Your task to perform on an android device: Go to Amazon Image 0: 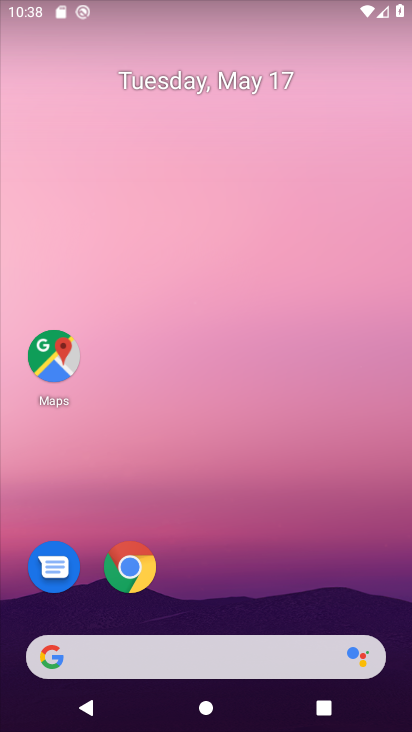
Step 0: click (139, 569)
Your task to perform on an android device: Go to Amazon Image 1: 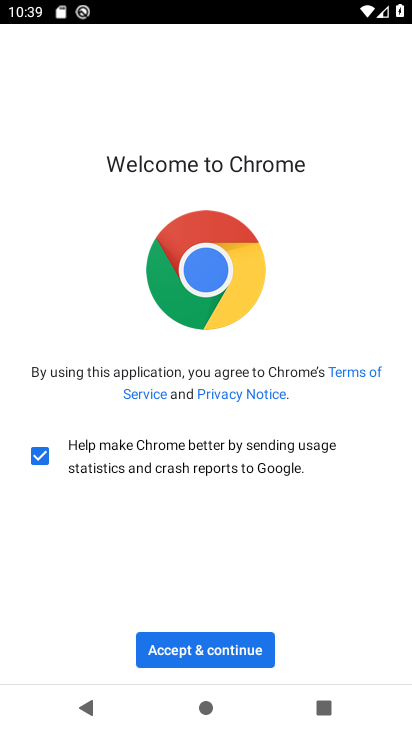
Step 1: click (208, 650)
Your task to perform on an android device: Go to Amazon Image 2: 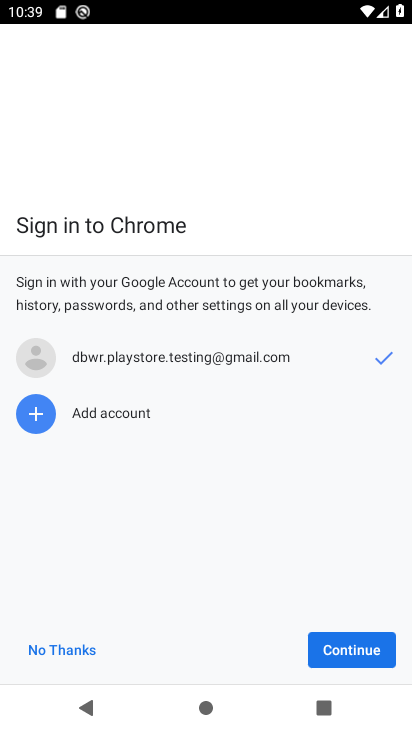
Step 2: click (342, 646)
Your task to perform on an android device: Go to Amazon Image 3: 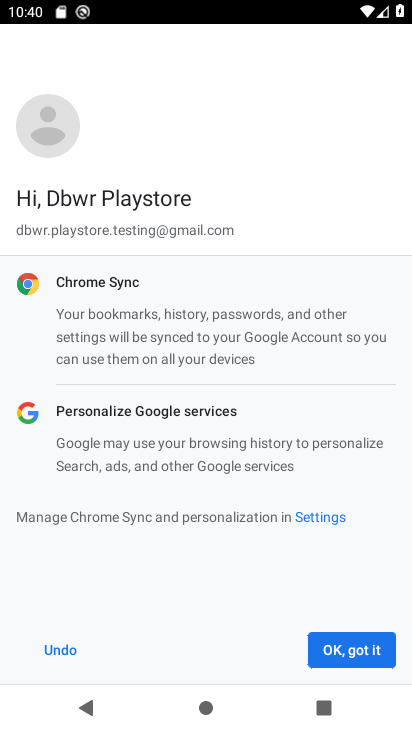
Step 3: click (329, 644)
Your task to perform on an android device: Go to Amazon Image 4: 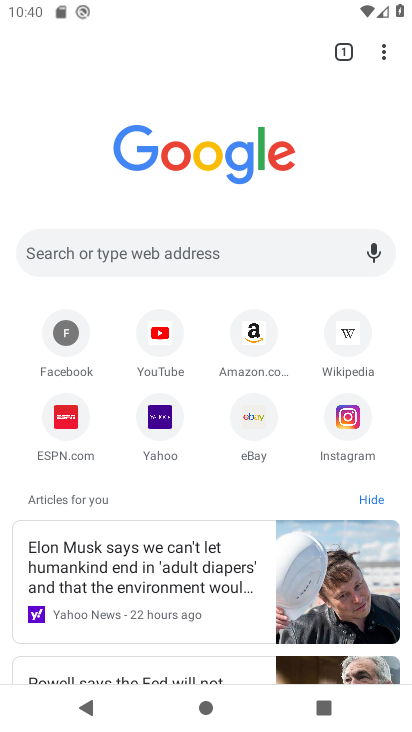
Step 4: click (250, 328)
Your task to perform on an android device: Go to Amazon Image 5: 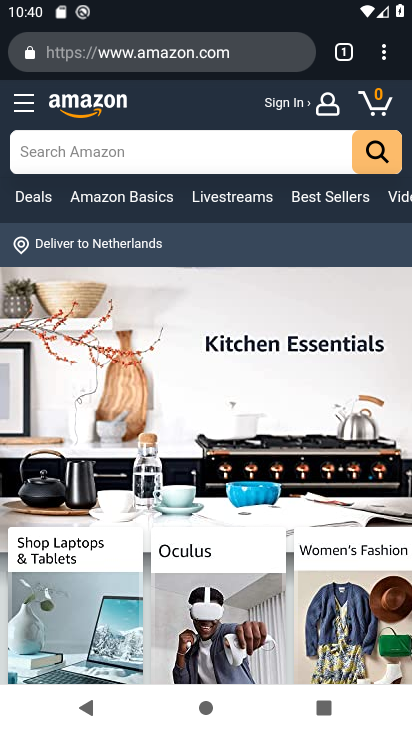
Step 5: task complete